Your task to perform on an android device: refresh tabs in the chrome app Image 0: 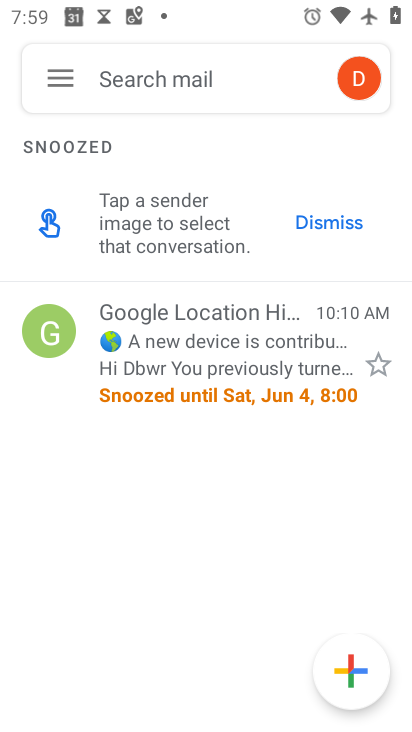
Step 0: press home button
Your task to perform on an android device: refresh tabs in the chrome app Image 1: 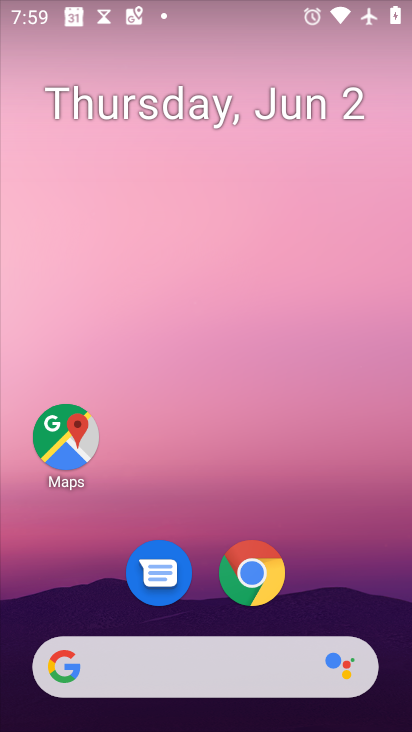
Step 1: click (258, 580)
Your task to perform on an android device: refresh tabs in the chrome app Image 2: 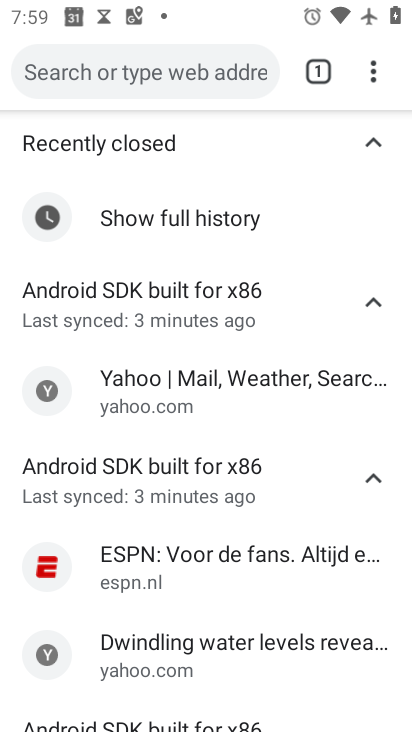
Step 2: click (374, 90)
Your task to perform on an android device: refresh tabs in the chrome app Image 3: 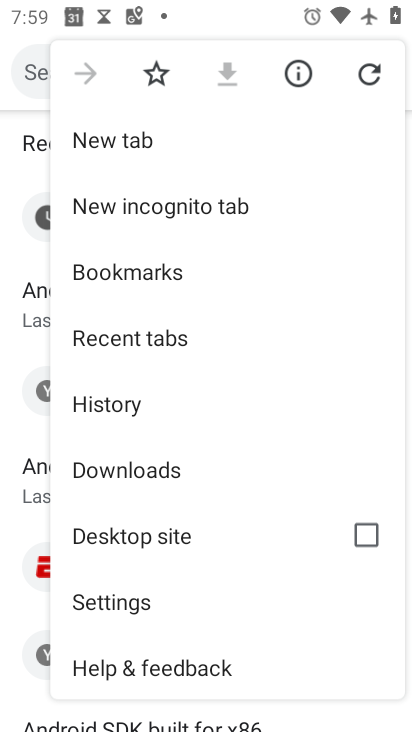
Step 3: click (358, 71)
Your task to perform on an android device: refresh tabs in the chrome app Image 4: 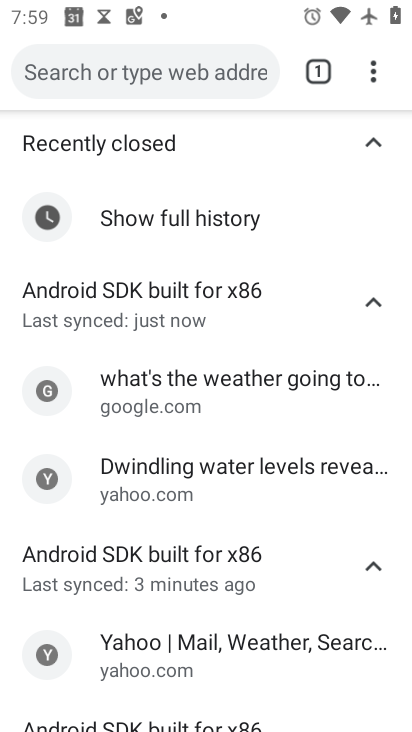
Step 4: task complete